Your task to perform on an android device: Open Maps and search for coffee Image 0: 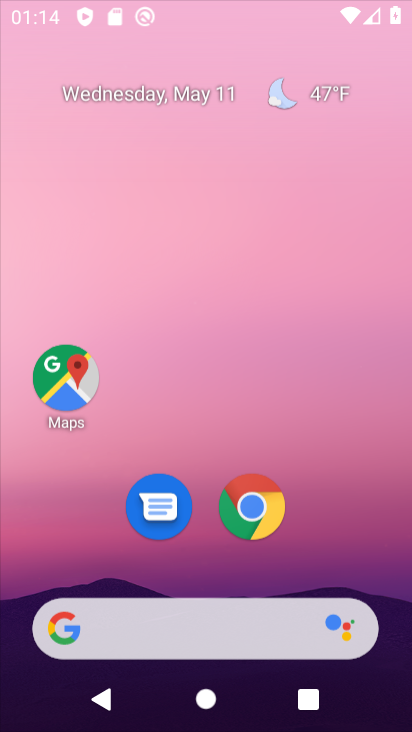
Step 0: click (347, 294)
Your task to perform on an android device: Open Maps and search for coffee Image 1: 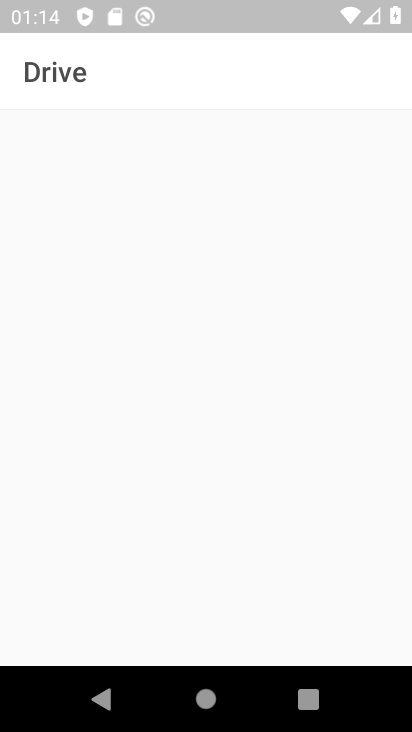
Step 1: press home button
Your task to perform on an android device: Open Maps and search for coffee Image 2: 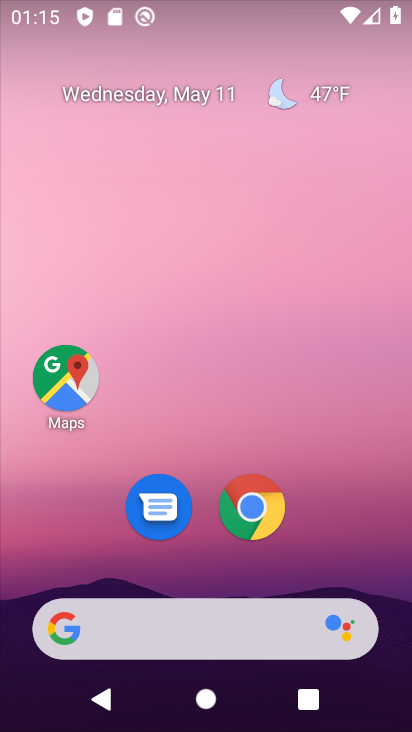
Step 2: click (61, 393)
Your task to perform on an android device: Open Maps and search for coffee Image 3: 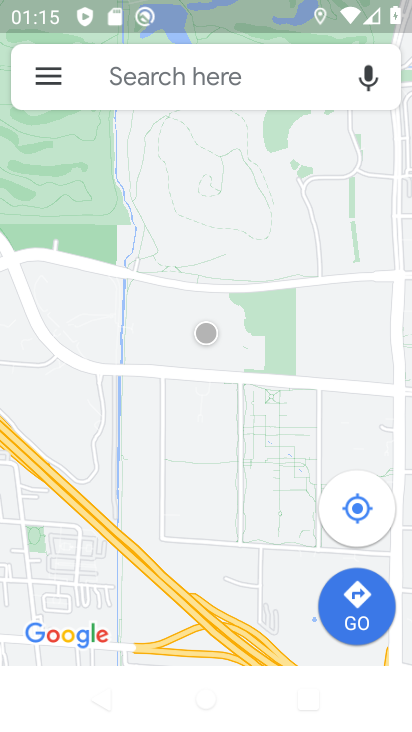
Step 3: click (112, 84)
Your task to perform on an android device: Open Maps and search for coffee Image 4: 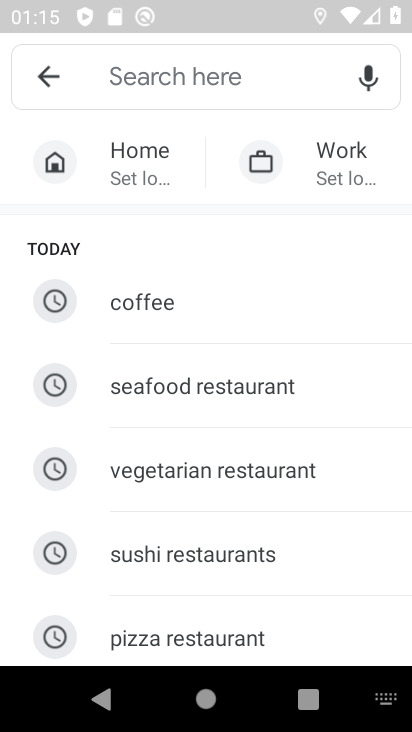
Step 4: click (152, 303)
Your task to perform on an android device: Open Maps and search for coffee Image 5: 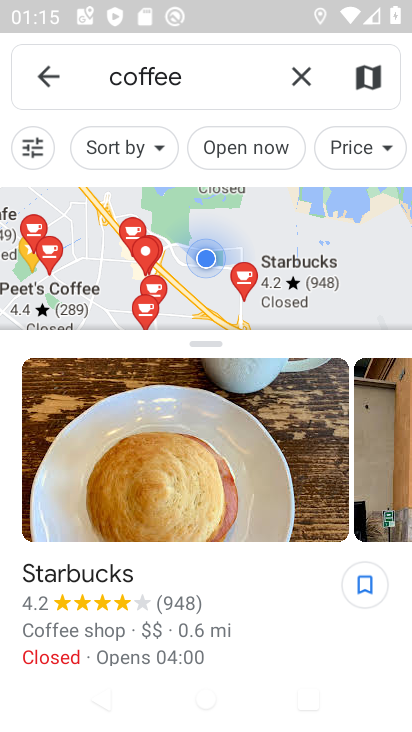
Step 5: task complete